Your task to perform on an android device: Go to notification settings Image 0: 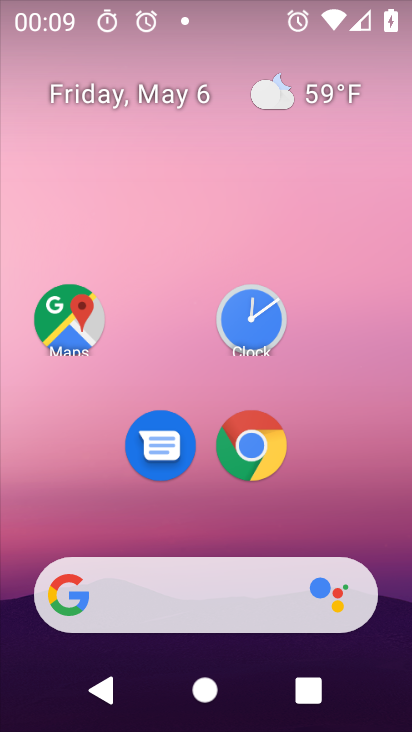
Step 0: drag from (249, 584) to (310, 164)
Your task to perform on an android device: Go to notification settings Image 1: 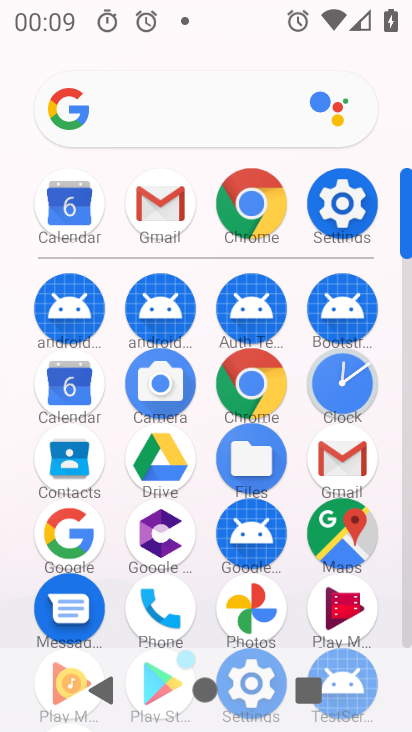
Step 1: click (340, 207)
Your task to perform on an android device: Go to notification settings Image 2: 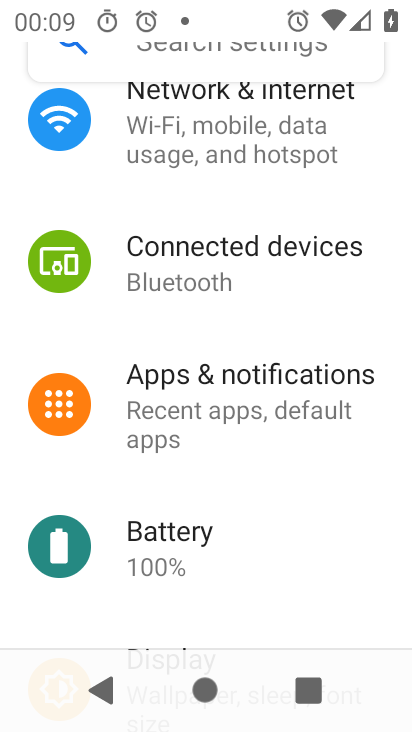
Step 2: click (245, 430)
Your task to perform on an android device: Go to notification settings Image 3: 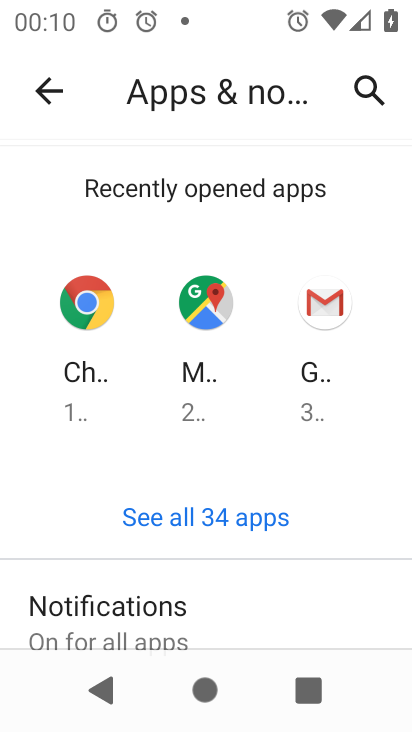
Step 3: task complete